Your task to perform on an android device: Open Chrome and go to settings Image 0: 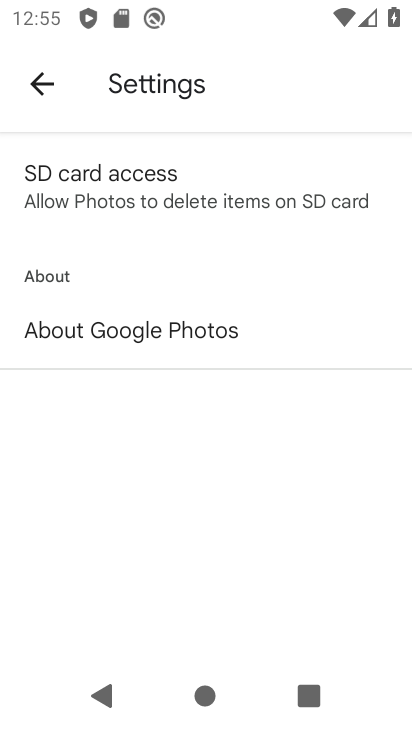
Step 0: press home button
Your task to perform on an android device: Open Chrome and go to settings Image 1: 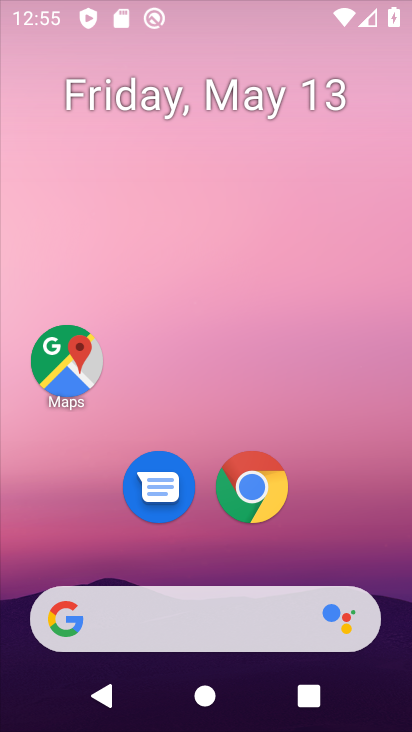
Step 1: drag from (379, 568) to (343, 259)
Your task to perform on an android device: Open Chrome and go to settings Image 2: 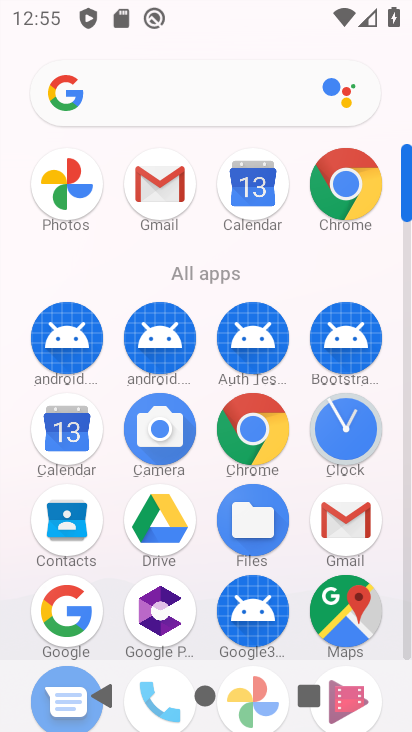
Step 2: click (265, 423)
Your task to perform on an android device: Open Chrome and go to settings Image 3: 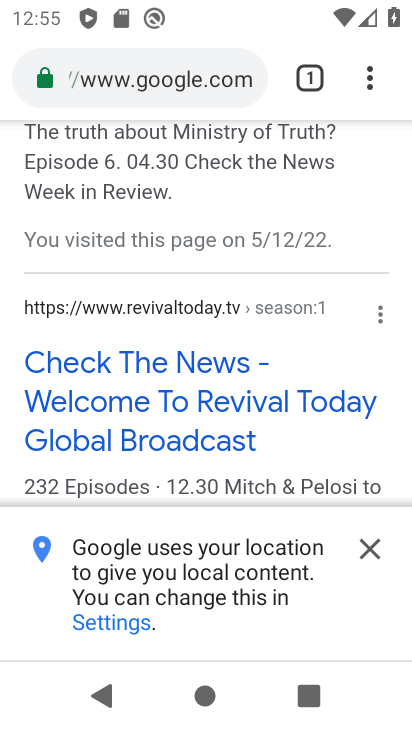
Step 3: task complete